Your task to perform on an android device: Open battery settings Image 0: 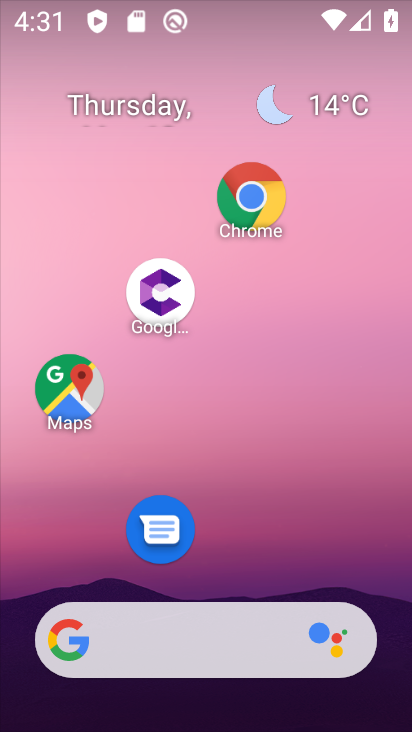
Step 0: drag from (262, 555) to (309, 146)
Your task to perform on an android device: Open battery settings Image 1: 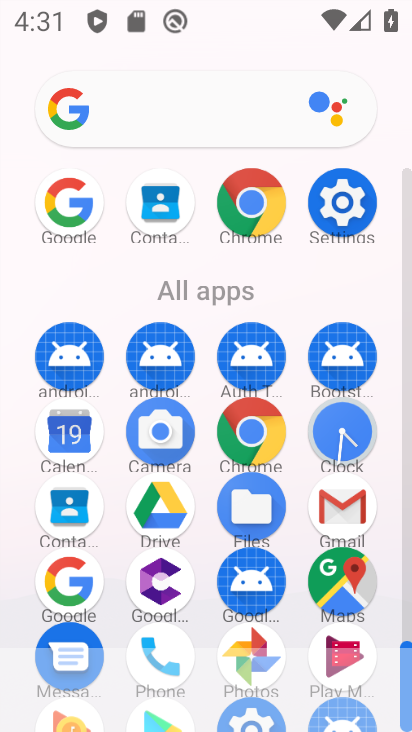
Step 1: click (349, 202)
Your task to perform on an android device: Open battery settings Image 2: 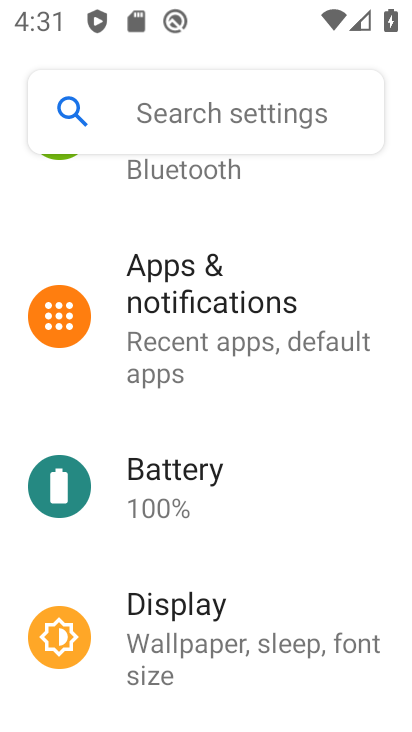
Step 2: click (213, 500)
Your task to perform on an android device: Open battery settings Image 3: 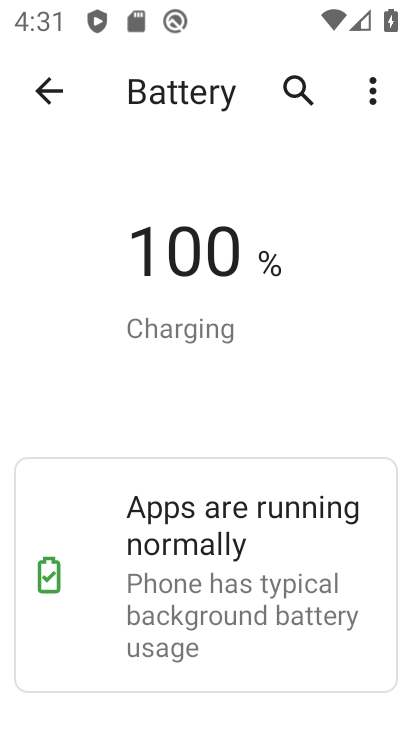
Step 3: task complete